Your task to perform on an android device: turn on sleep mode Image 0: 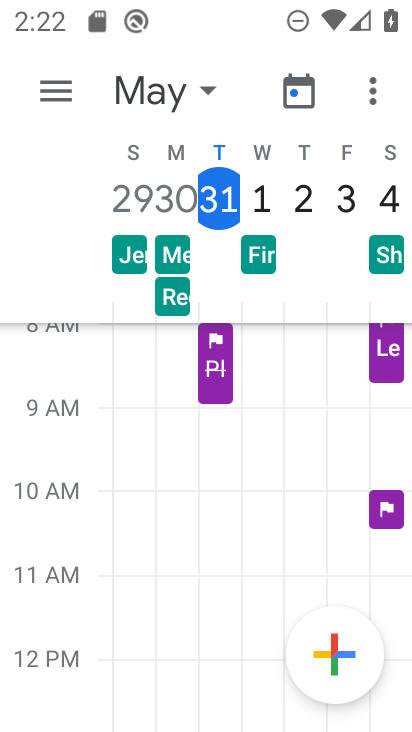
Step 0: press home button
Your task to perform on an android device: turn on sleep mode Image 1: 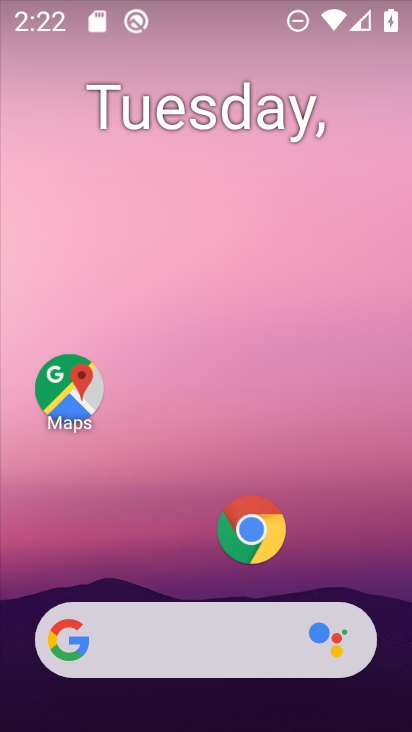
Step 1: drag from (231, 671) to (275, 79)
Your task to perform on an android device: turn on sleep mode Image 2: 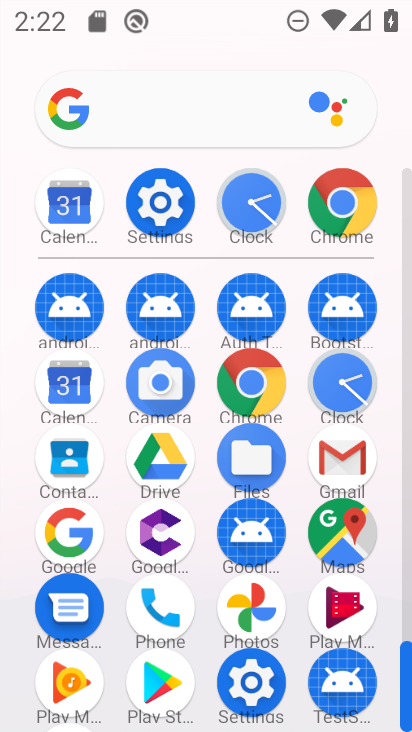
Step 2: click (246, 673)
Your task to perform on an android device: turn on sleep mode Image 3: 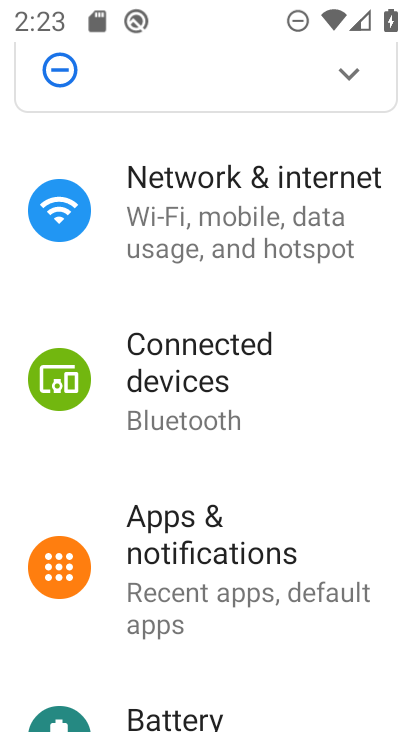
Step 3: drag from (318, 199) to (301, 380)
Your task to perform on an android device: turn on sleep mode Image 4: 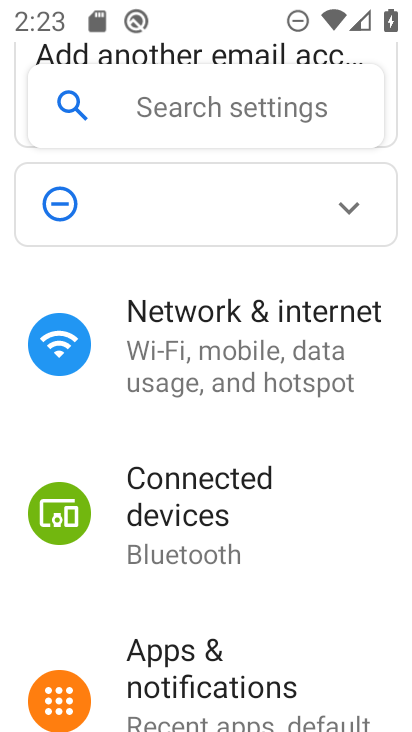
Step 4: click (171, 104)
Your task to perform on an android device: turn on sleep mode Image 5: 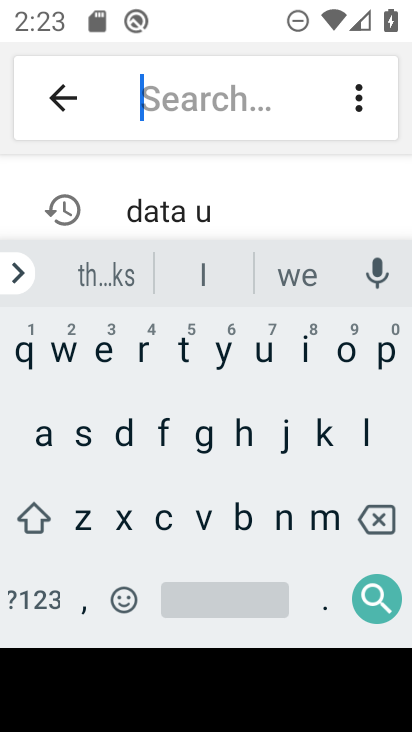
Step 5: click (88, 439)
Your task to perform on an android device: turn on sleep mode Image 6: 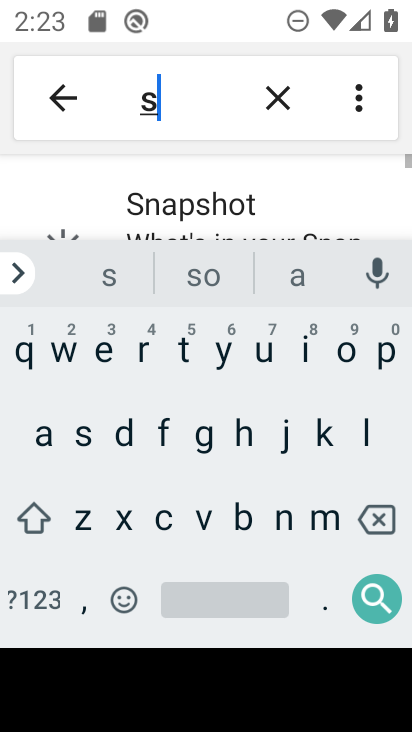
Step 6: click (358, 423)
Your task to perform on an android device: turn on sleep mode Image 7: 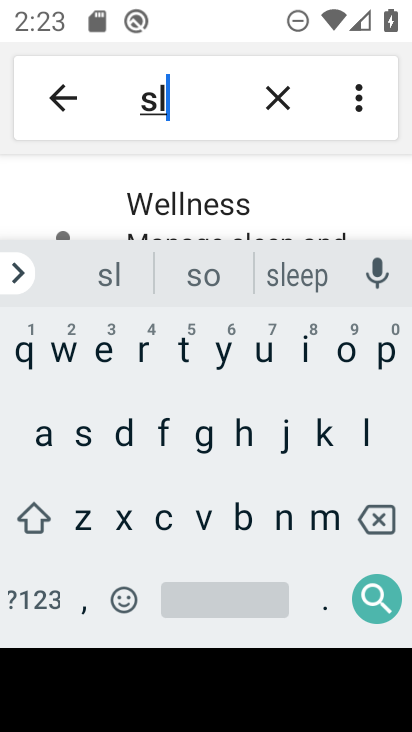
Step 7: click (193, 208)
Your task to perform on an android device: turn on sleep mode Image 8: 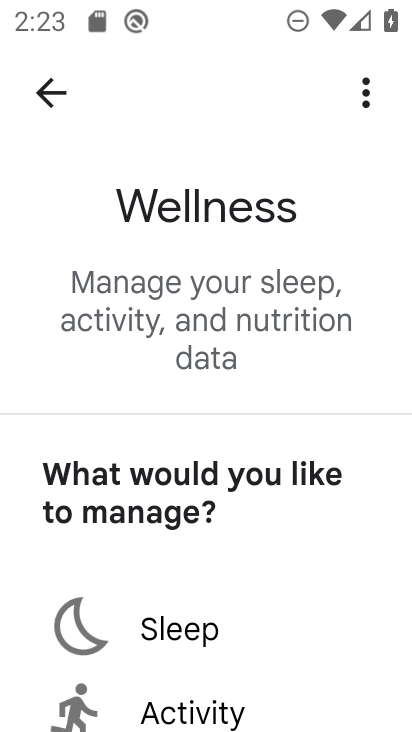
Step 8: click (155, 624)
Your task to perform on an android device: turn on sleep mode Image 9: 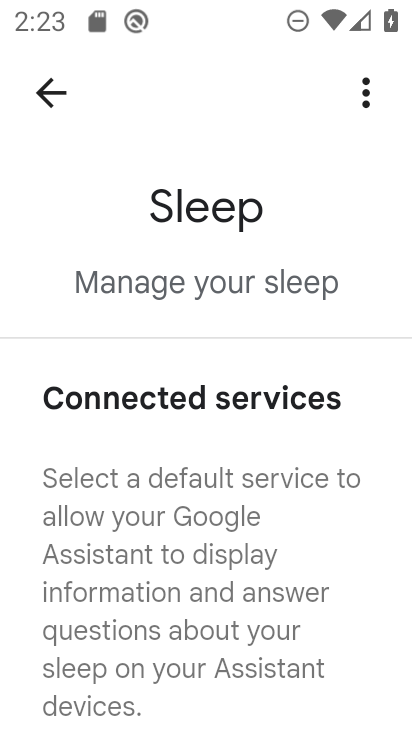
Step 9: task complete